Your task to perform on an android device: delete the emails in spam in the gmail app Image 0: 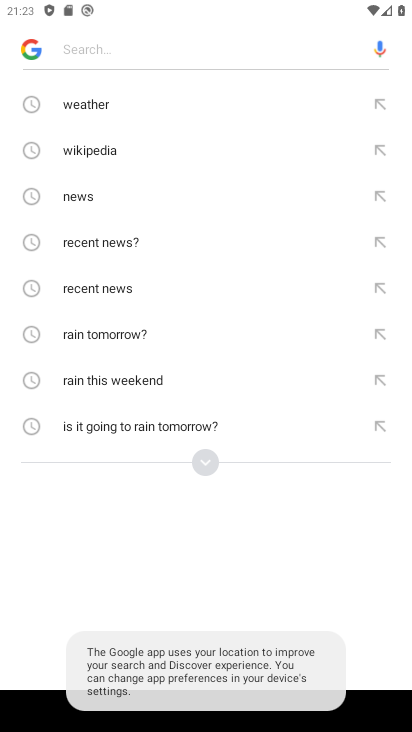
Step 0: press home button
Your task to perform on an android device: delete the emails in spam in the gmail app Image 1: 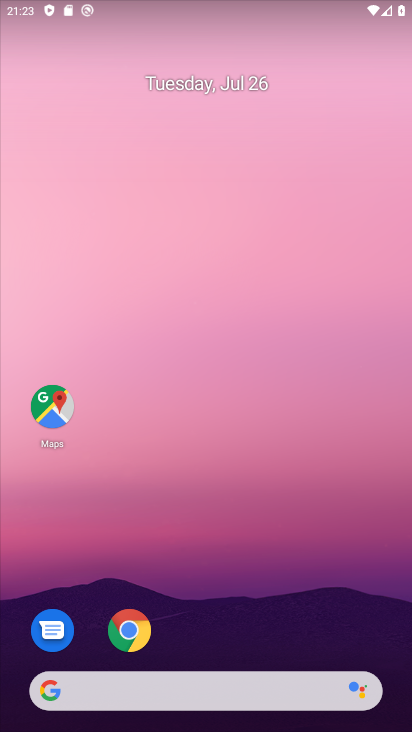
Step 1: drag from (258, 631) to (256, 51)
Your task to perform on an android device: delete the emails in spam in the gmail app Image 2: 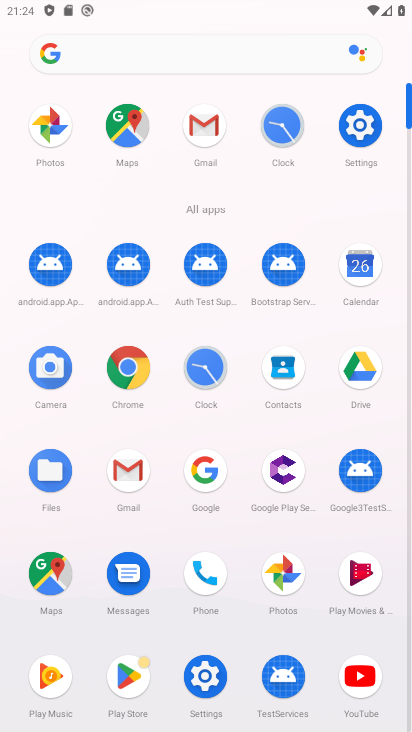
Step 2: click (129, 470)
Your task to perform on an android device: delete the emails in spam in the gmail app Image 3: 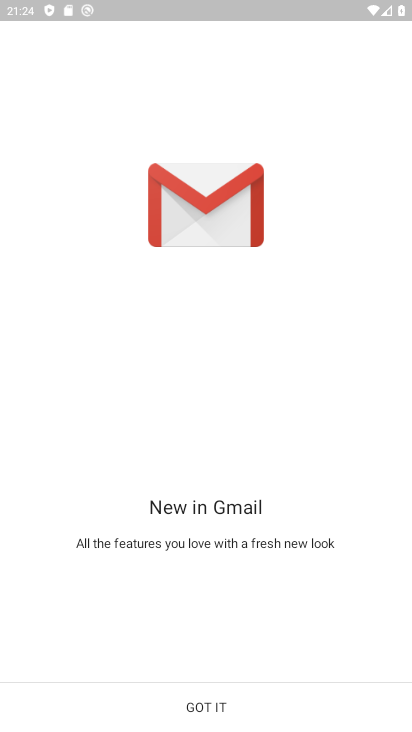
Step 3: click (246, 713)
Your task to perform on an android device: delete the emails in spam in the gmail app Image 4: 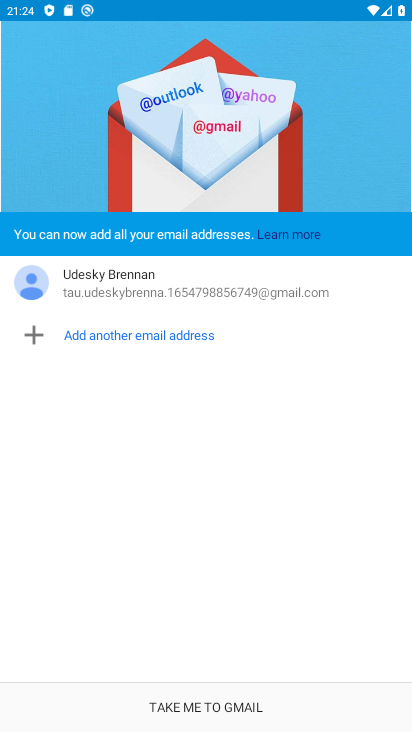
Step 4: click (247, 705)
Your task to perform on an android device: delete the emails in spam in the gmail app Image 5: 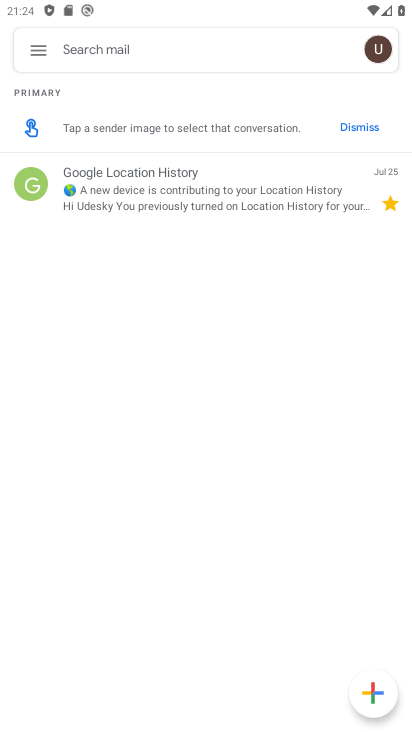
Step 5: click (39, 55)
Your task to perform on an android device: delete the emails in spam in the gmail app Image 6: 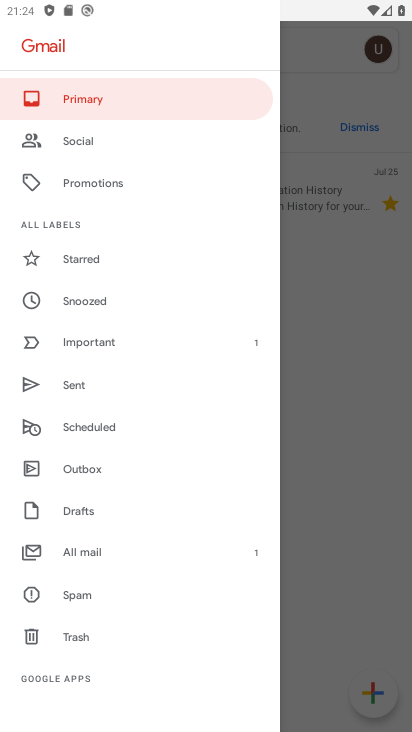
Step 6: click (78, 597)
Your task to perform on an android device: delete the emails in spam in the gmail app Image 7: 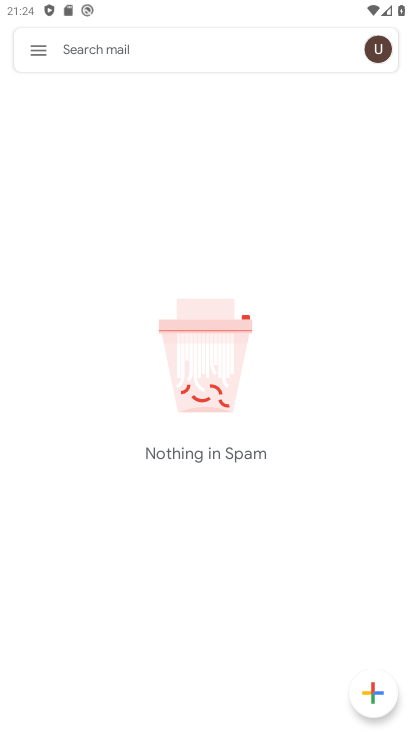
Step 7: task complete